Your task to perform on an android device: Open my contact list Image 0: 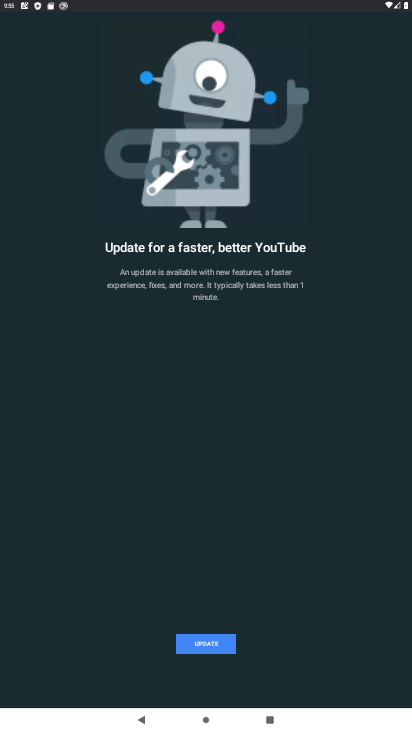
Step 0: press home button
Your task to perform on an android device: Open my contact list Image 1: 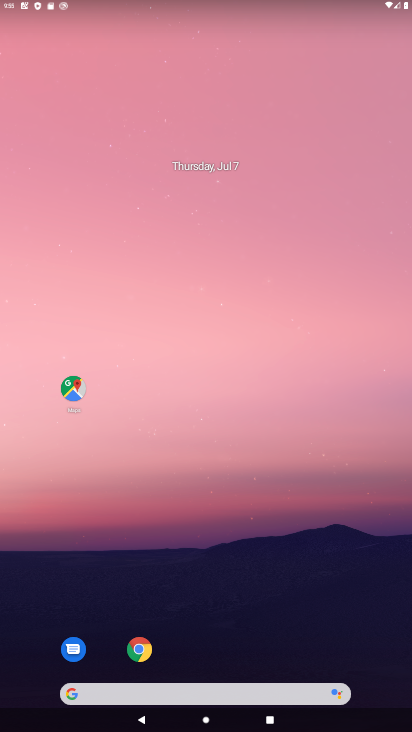
Step 1: drag from (274, 522) to (252, 251)
Your task to perform on an android device: Open my contact list Image 2: 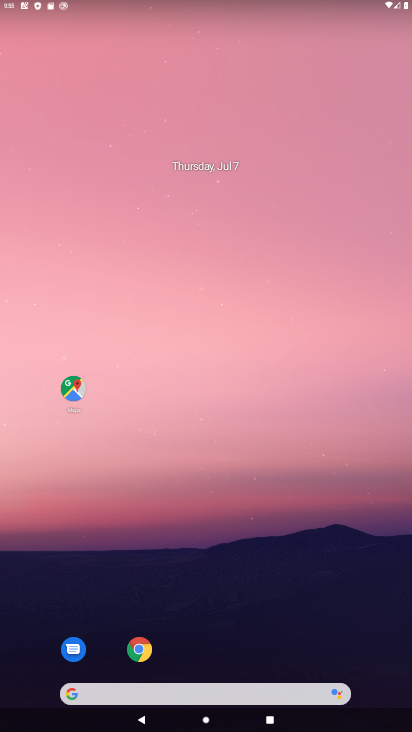
Step 2: drag from (281, 531) to (283, 6)
Your task to perform on an android device: Open my contact list Image 3: 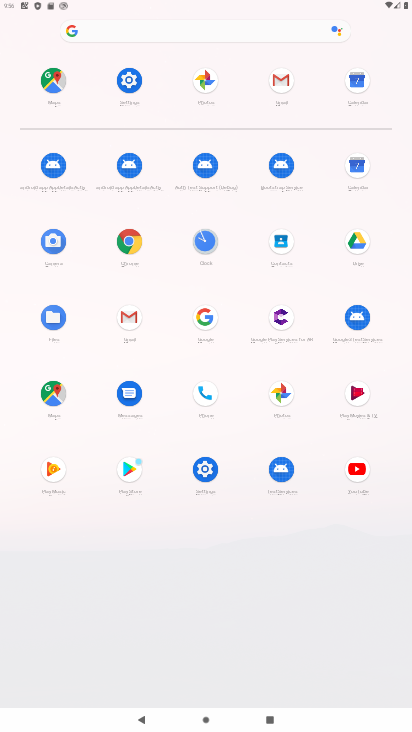
Step 3: click (282, 248)
Your task to perform on an android device: Open my contact list Image 4: 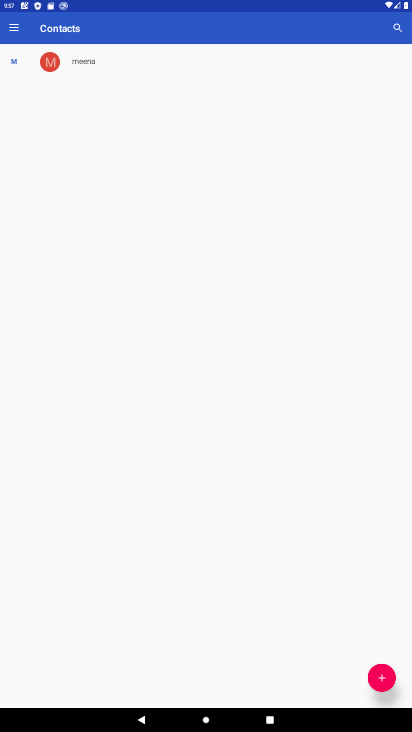
Step 4: task complete